Your task to perform on an android device: delete a single message in the gmail app Image 0: 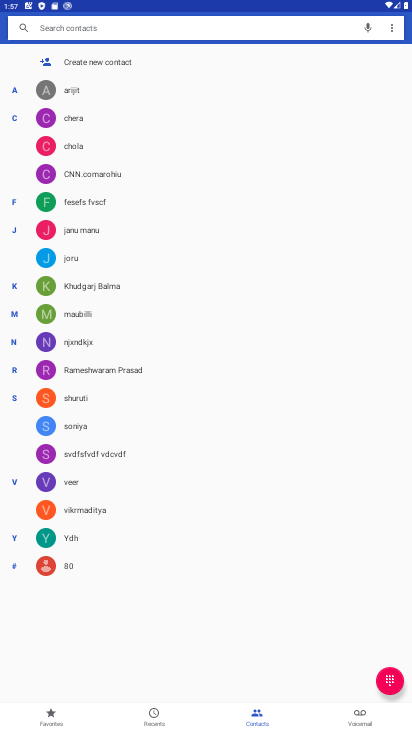
Step 0: press home button
Your task to perform on an android device: delete a single message in the gmail app Image 1: 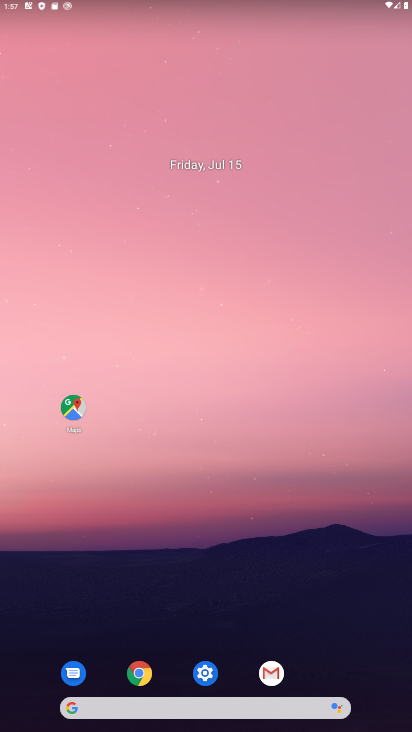
Step 1: click (272, 669)
Your task to perform on an android device: delete a single message in the gmail app Image 2: 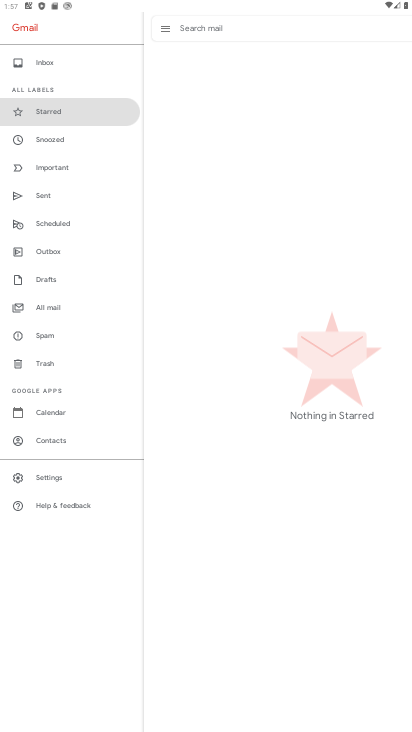
Step 2: click (58, 307)
Your task to perform on an android device: delete a single message in the gmail app Image 3: 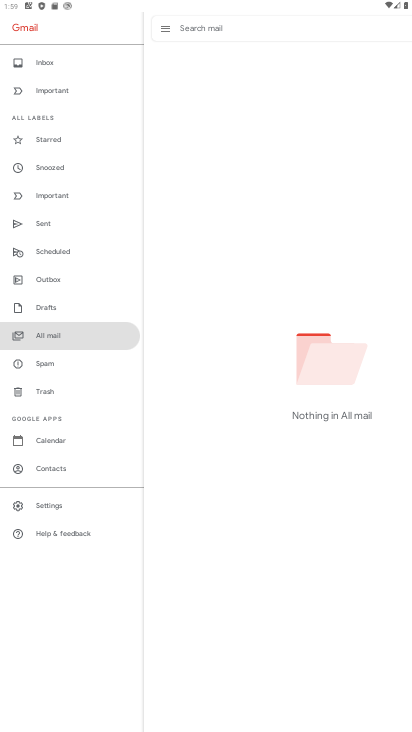
Step 3: task complete